Your task to perform on an android device: Find coffee shops on Maps Image 0: 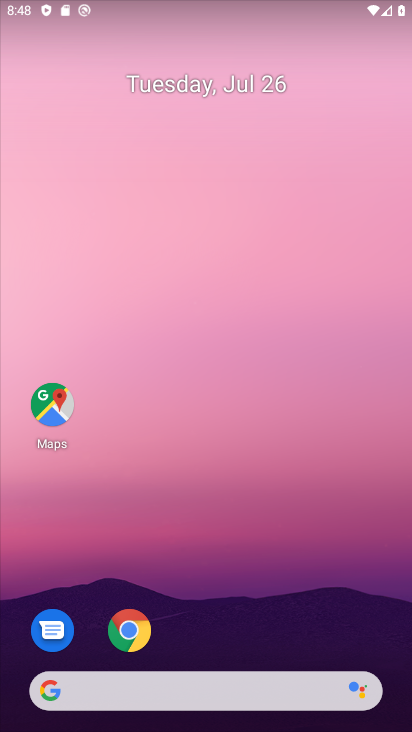
Step 0: drag from (255, 570) to (287, 49)
Your task to perform on an android device: Find coffee shops on Maps Image 1: 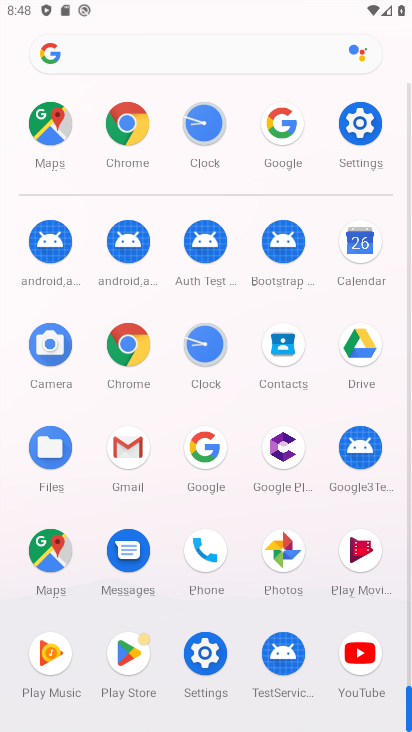
Step 1: click (60, 553)
Your task to perform on an android device: Find coffee shops on Maps Image 2: 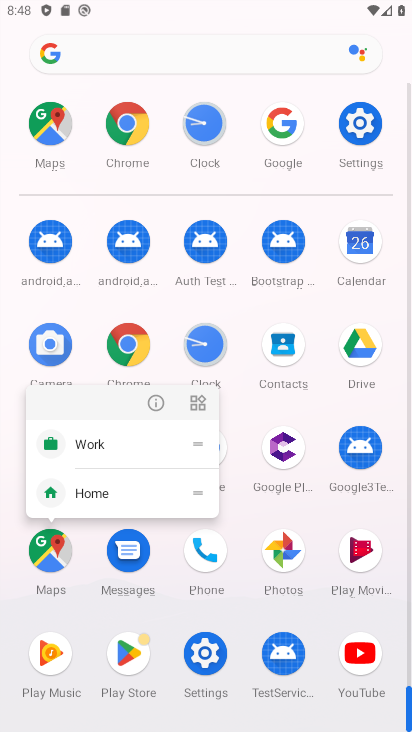
Step 2: click (49, 547)
Your task to perform on an android device: Find coffee shops on Maps Image 3: 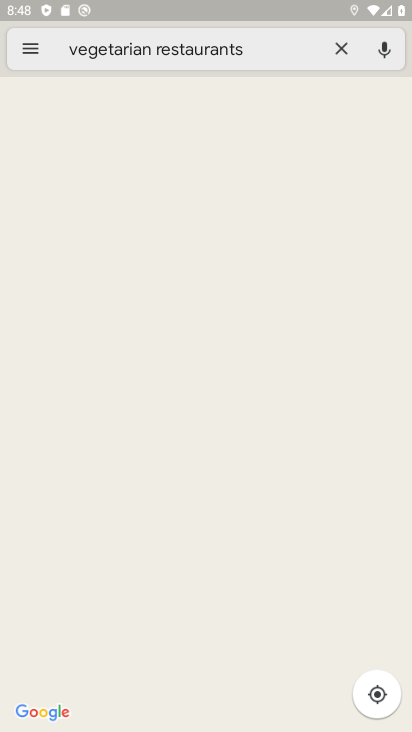
Step 3: click (346, 50)
Your task to perform on an android device: Find coffee shops on Maps Image 4: 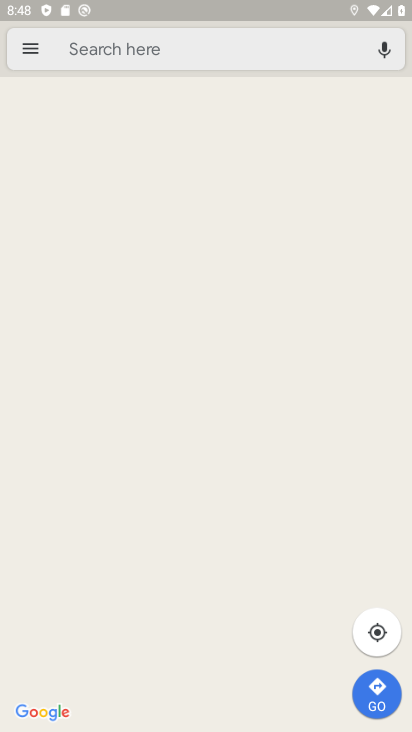
Step 4: click (140, 48)
Your task to perform on an android device: Find coffee shops on Maps Image 5: 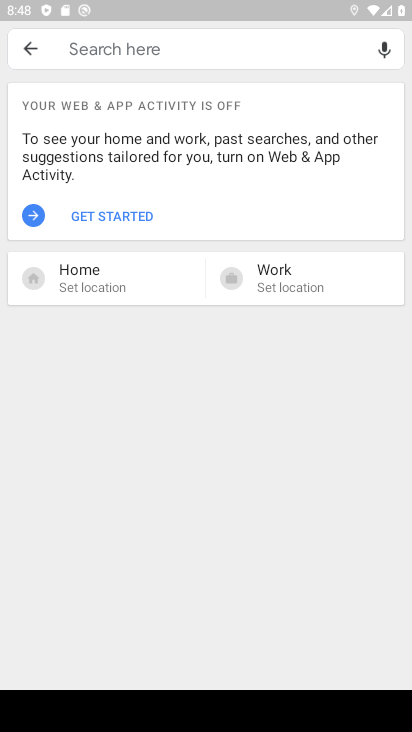
Step 5: type " coffee shops"
Your task to perform on an android device: Find coffee shops on Maps Image 6: 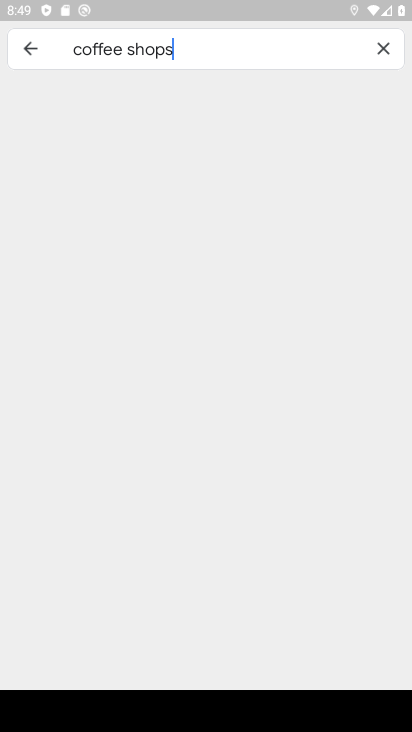
Step 6: press enter
Your task to perform on an android device: Find coffee shops on Maps Image 7: 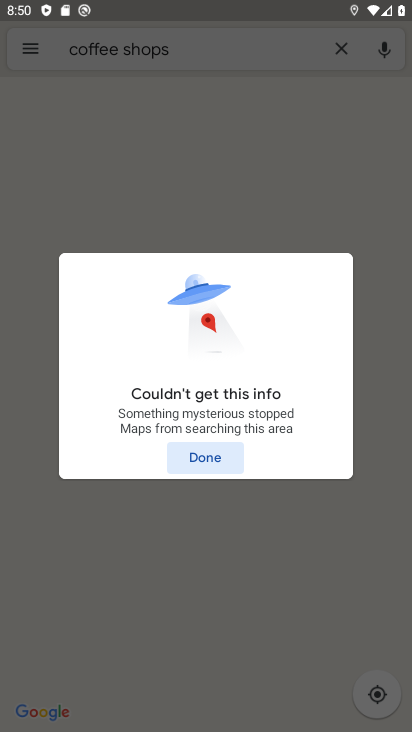
Step 7: click (215, 457)
Your task to perform on an android device: Find coffee shops on Maps Image 8: 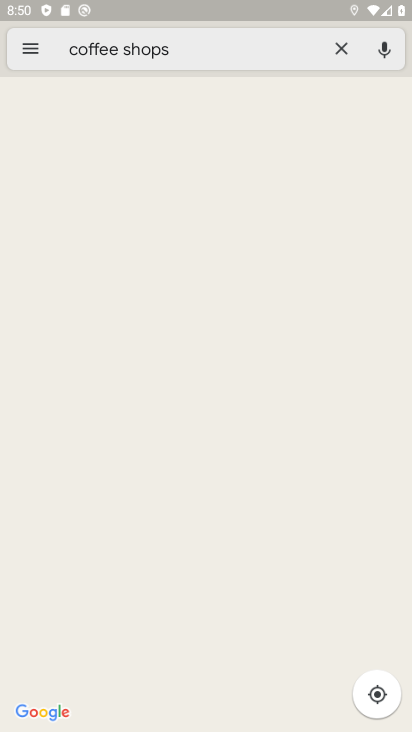
Step 8: drag from (284, 242) to (16, 349)
Your task to perform on an android device: Find coffee shops on Maps Image 9: 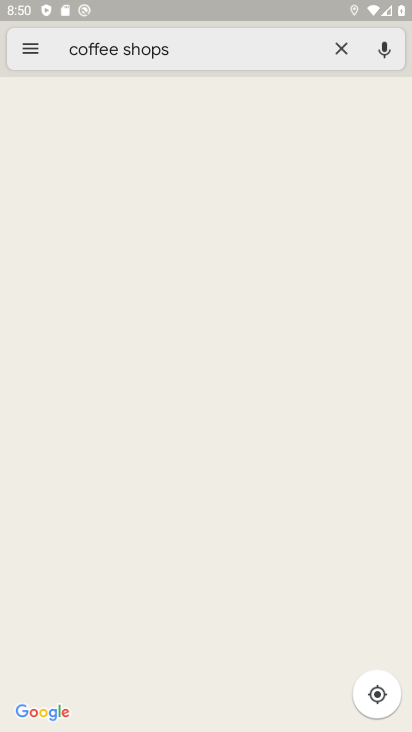
Step 9: click (180, 51)
Your task to perform on an android device: Find coffee shops on Maps Image 10: 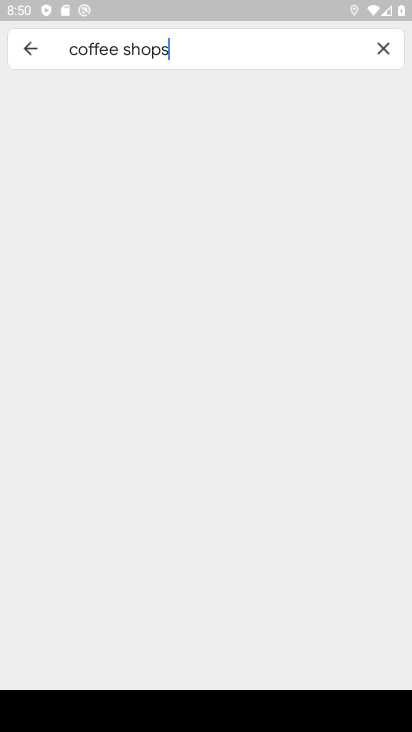
Step 10: press enter
Your task to perform on an android device: Find coffee shops on Maps Image 11: 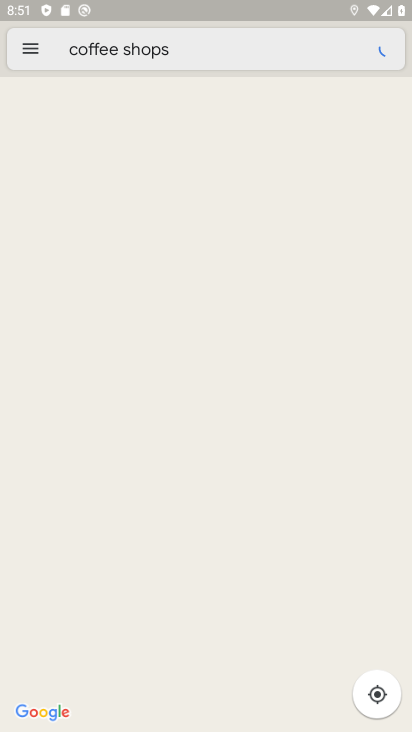
Step 11: task complete